Your task to perform on an android device: turn off airplane mode Image 0: 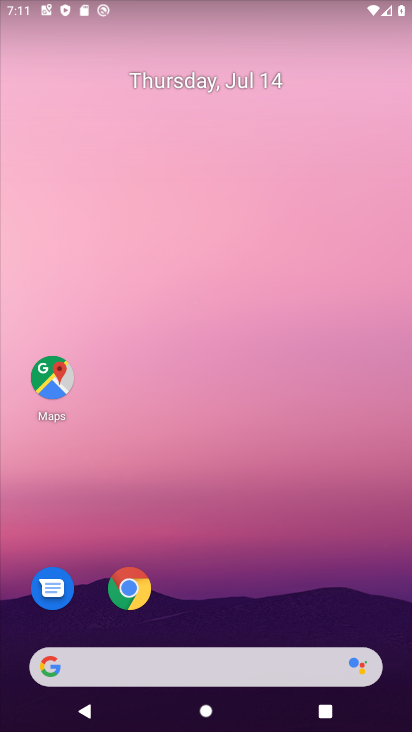
Step 0: drag from (368, 627) to (238, 128)
Your task to perform on an android device: turn off airplane mode Image 1: 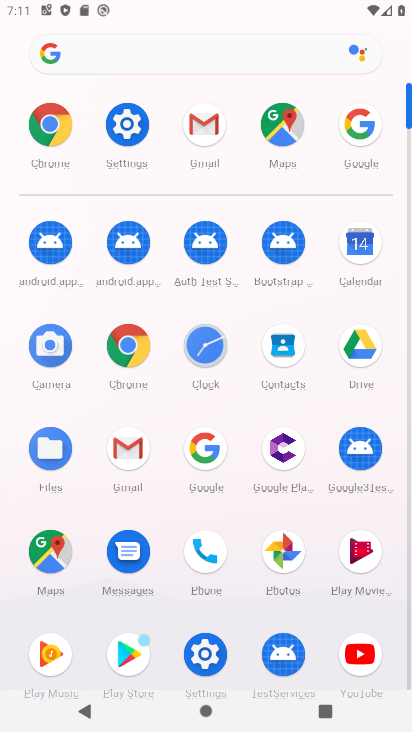
Step 1: task complete